Your task to perform on an android device: open chrome privacy settings Image 0: 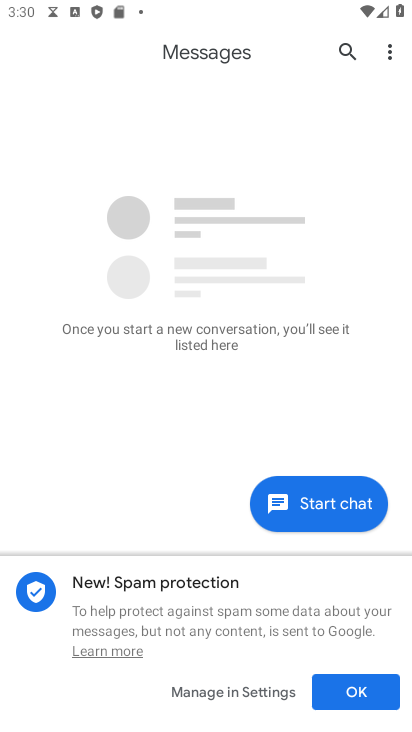
Step 0: press home button
Your task to perform on an android device: open chrome privacy settings Image 1: 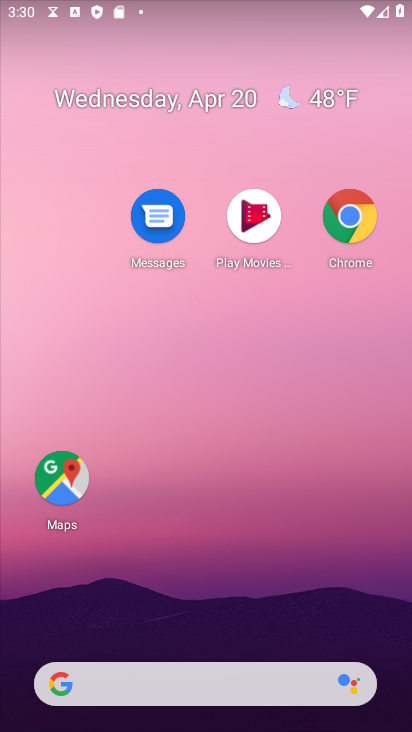
Step 1: click (362, 233)
Your task to perform on an android device: open chrome privacy settings Image 2: 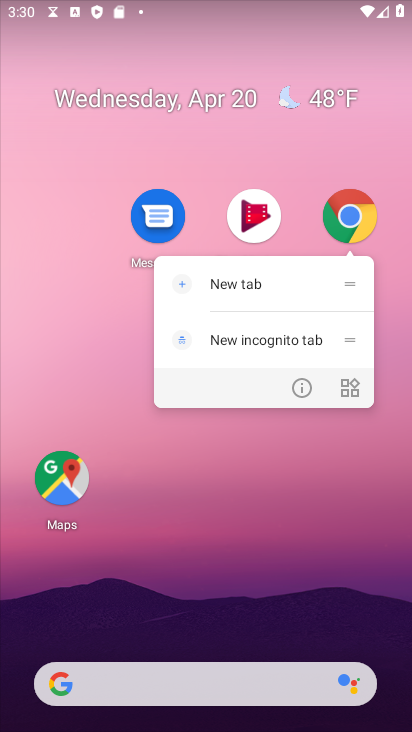
Step 2: click (298, 393)
Your task to perform on an android device: open chrome privacy settings Image 3: 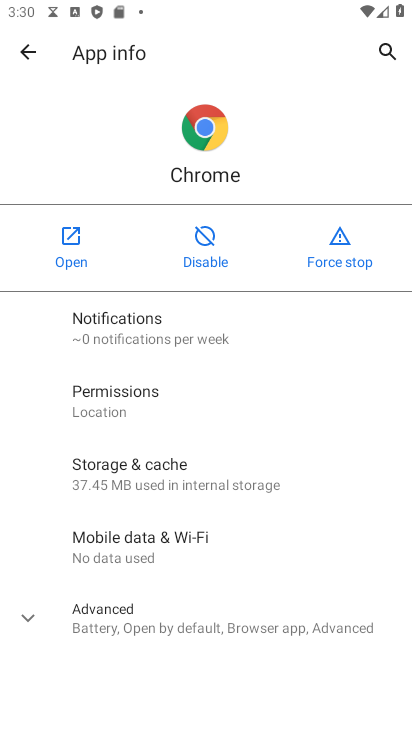
Step 3: click (69, 256)
Your task to perform on an android device: open chrome privacy settings Image 4: 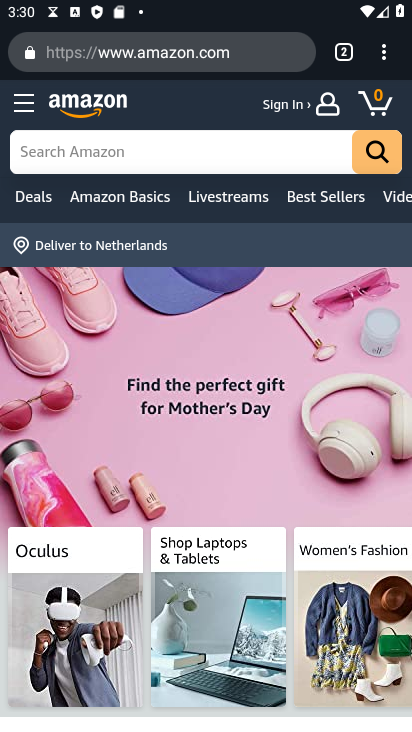
Step 4: click (384, 53)
Your task to perform on an android device: open chrome privacy settings Image 5: 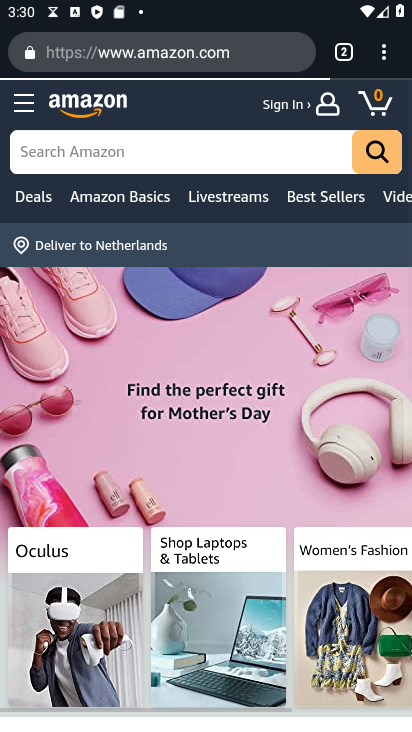
Step 5: click (387, 60)
Your task to perform on an android device: open chrome privacy settings Image 6: 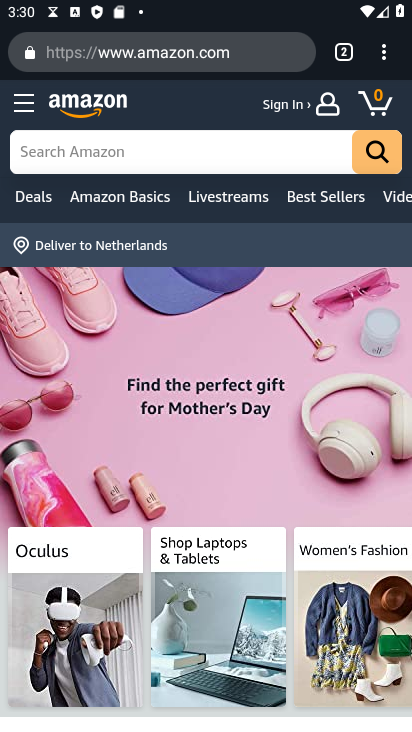
Step 6: click (385, 60)
Your task to perform on an android device: open chrome privacy settings Image 7: 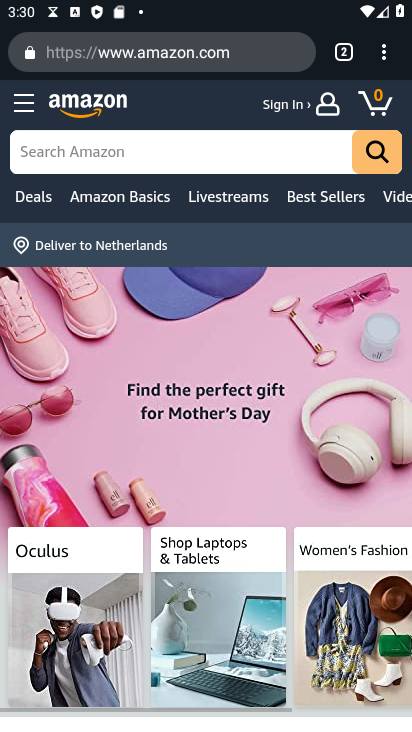
Step 7: click (385, 63)
Your task to perform on an android device: open chrome privacy settings Image 8: 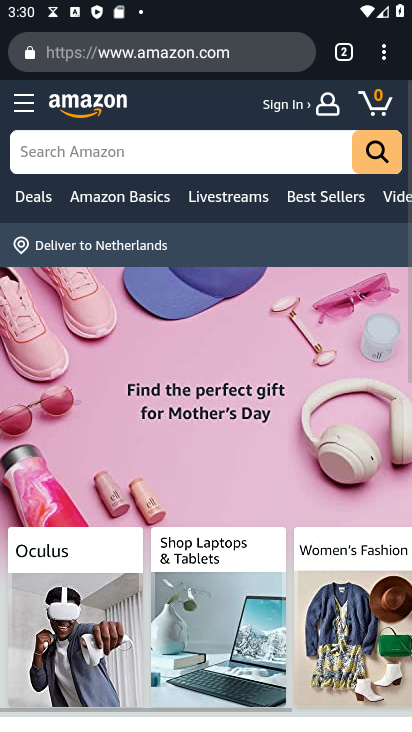
Step 8: click (385, 58)
Your task to perform on an android device: open chrome privacy settings Image 9: 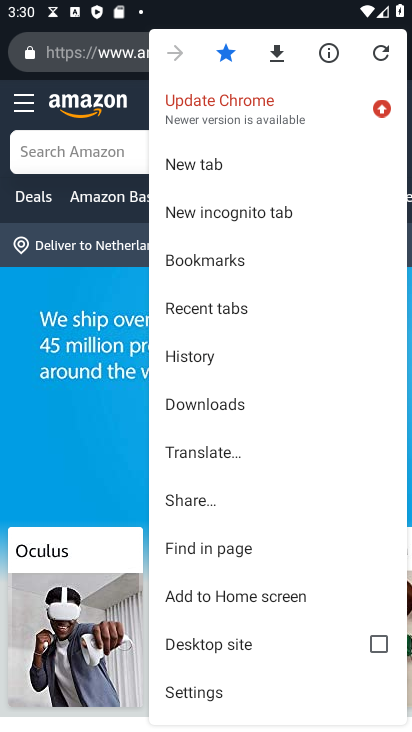
Step 9: click (210, 691)
Your task to perform on an android device: open chrome privacy settings Image 10: 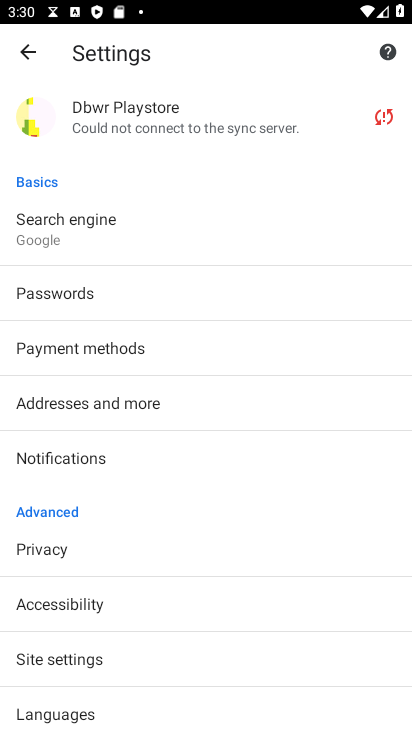
Step 10: click (83, 550)
Your task to perform on an android device: open chrome privacy settings Image 11: 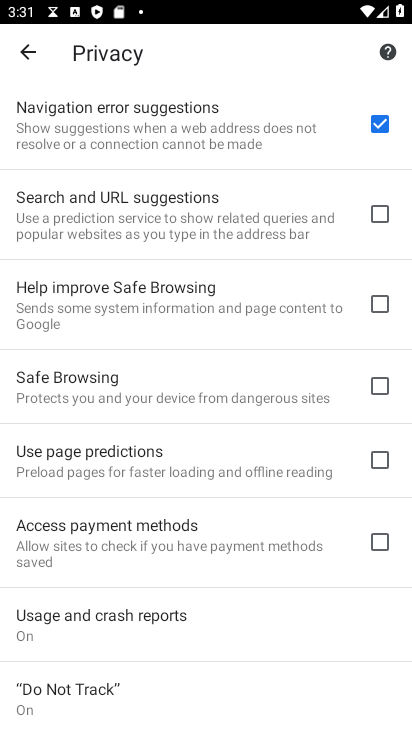
Step 11: task complete